Your task to perform on an android device: Search for seafood restaurants on Google Maps Image 0: 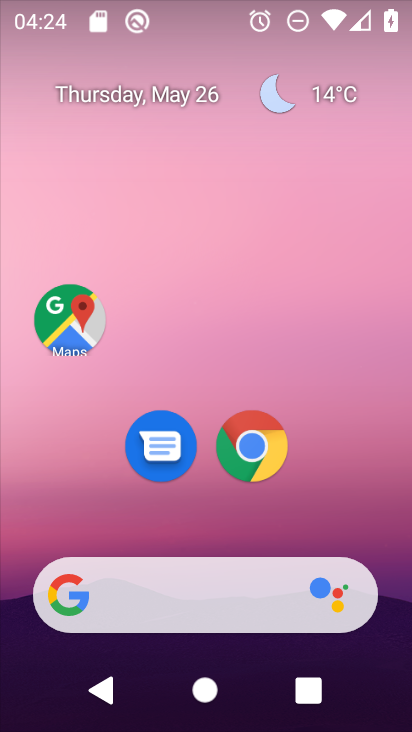
Step 0: click (71, 326)
Your task to perform on an android device: Search for seafood restaurants on Google Maps Image 1: 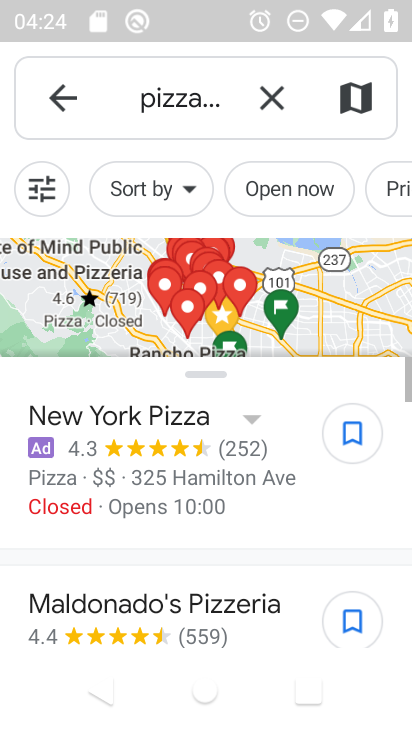
Step 1: click (262, 104)
Your task to perform on an android device: Search for seafood restaurants on Google Maps Image 2: 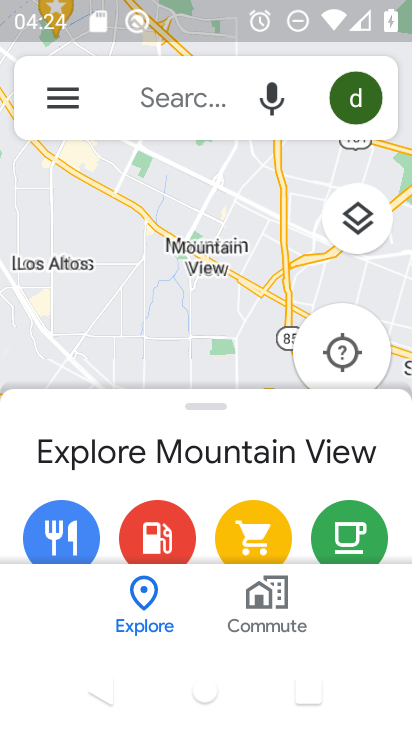
Step 2: click (132, 99)
Your task to perform on an android device: Search for seafood restaurants on Google Maps Image 3: 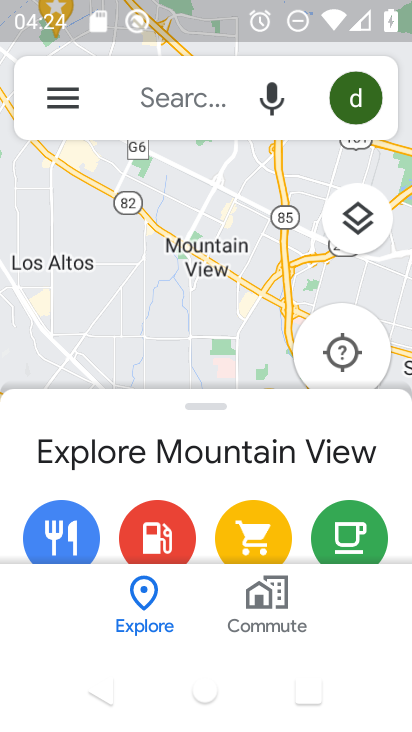
Step 3: click (143, 99)
Your task to perform on an android device: Search for seafood restaurants on Google Maps Image 4: 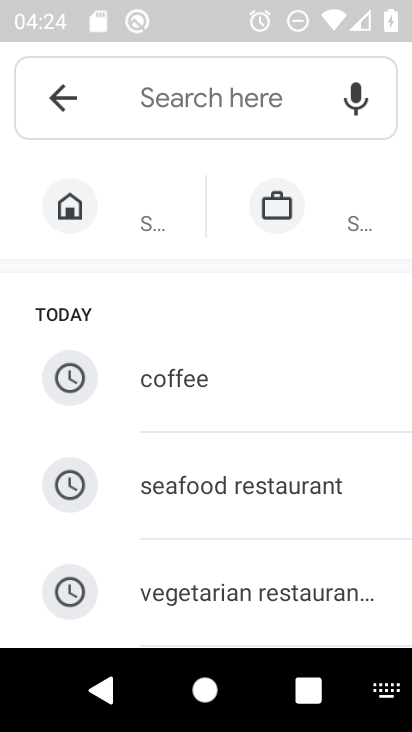
Step 4: type "seafood restaurants "
Your task to perform on an android device: Search for seafood restaurants on Google Maps Image 5: 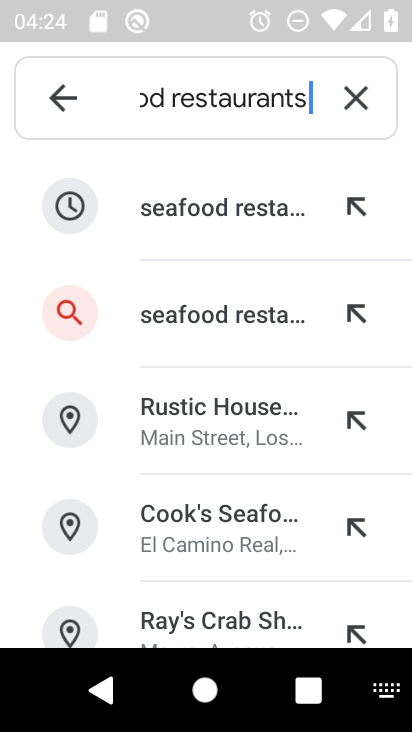
Step 5: click (199, 214)
Your task to perform on an android device: Search for seafood restaurants on Google Maps Image 6: 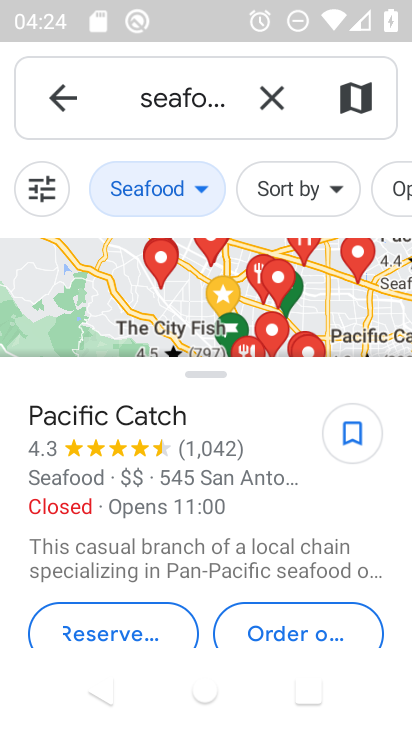
Step 6: task complete